Your task to perform on an android device: Open calendar and show me the first week of next month Image 0: 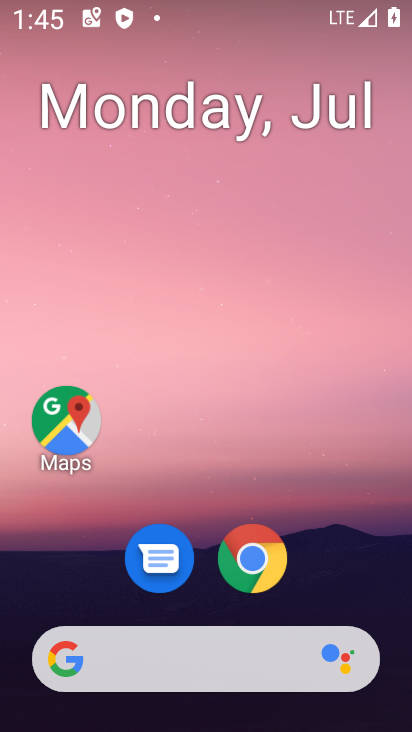
Step 0: drag from (358, 541) to (340, 74)
Your task to perform on an android device: Open calendar and show me the first week of next month Image 1: 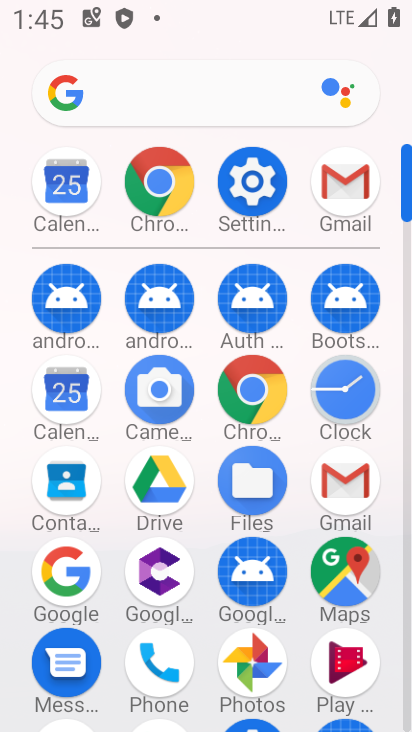
Step 1: click (68, 393)
Your task to perform on an android device: Open calendar and show me the first week of next month Image 2: 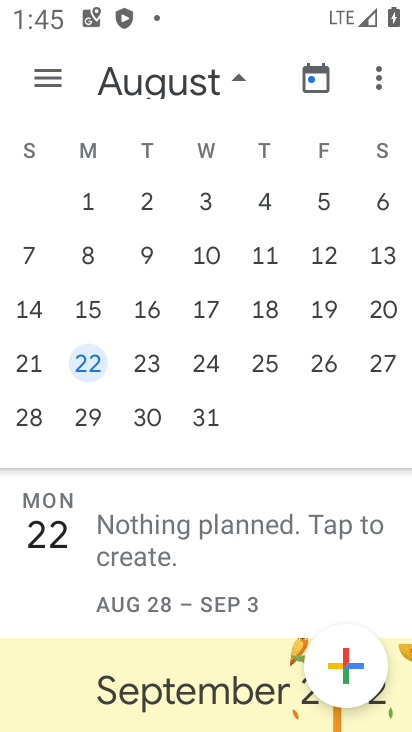
Step 2: click (86, 202)
Your task to perform on an android device: Open calendar and show me the first week of next month Image 3: 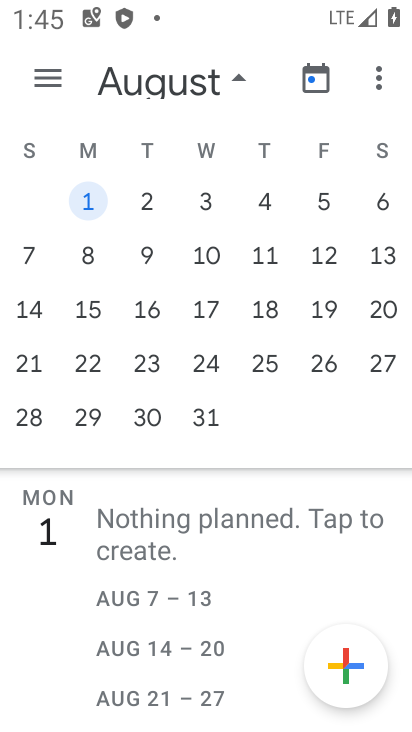
Step 3: task complete